Your task to perform on an android device: install app "Duolingo: language lessons" Image 0: 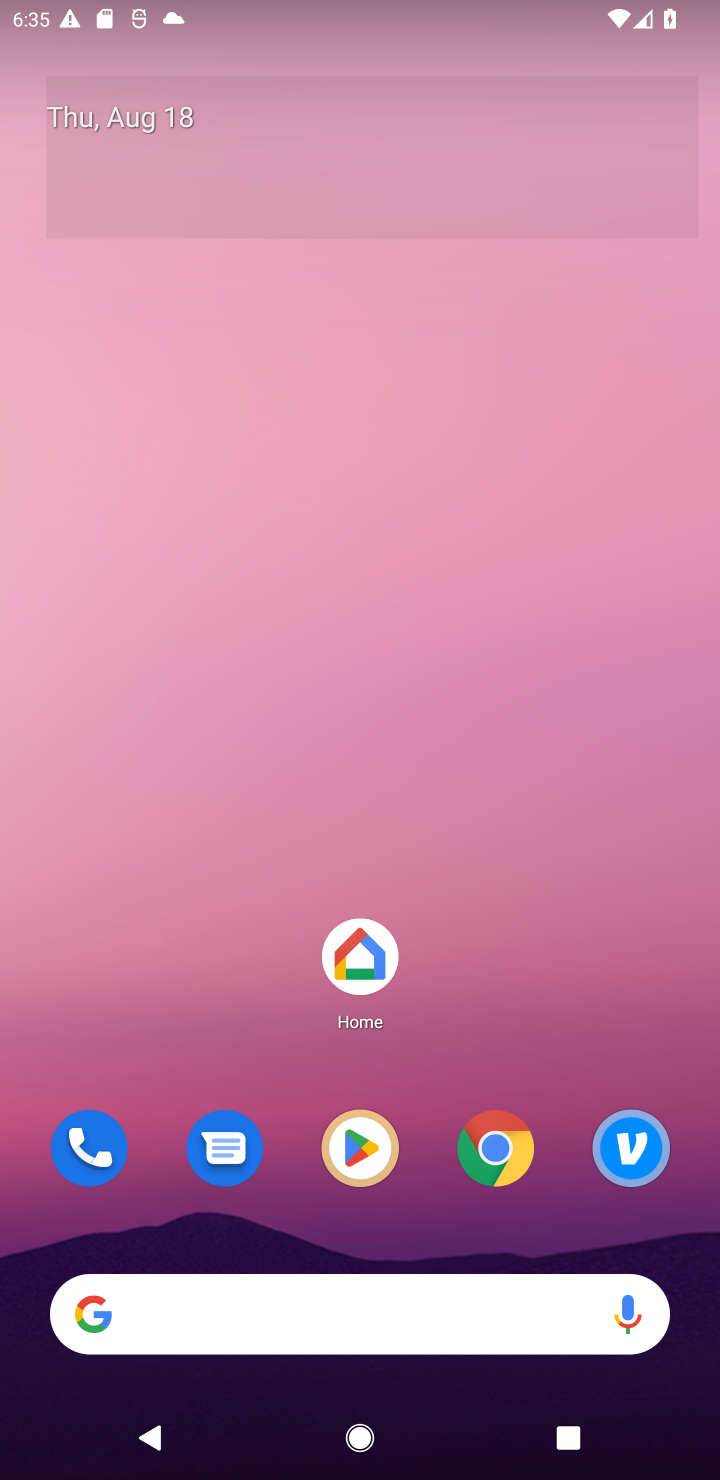
Step 0: drag from (256, 967) to (339, 51)
Your task to perform on an android device: install app "Duolingo: language lessons" Image 1: 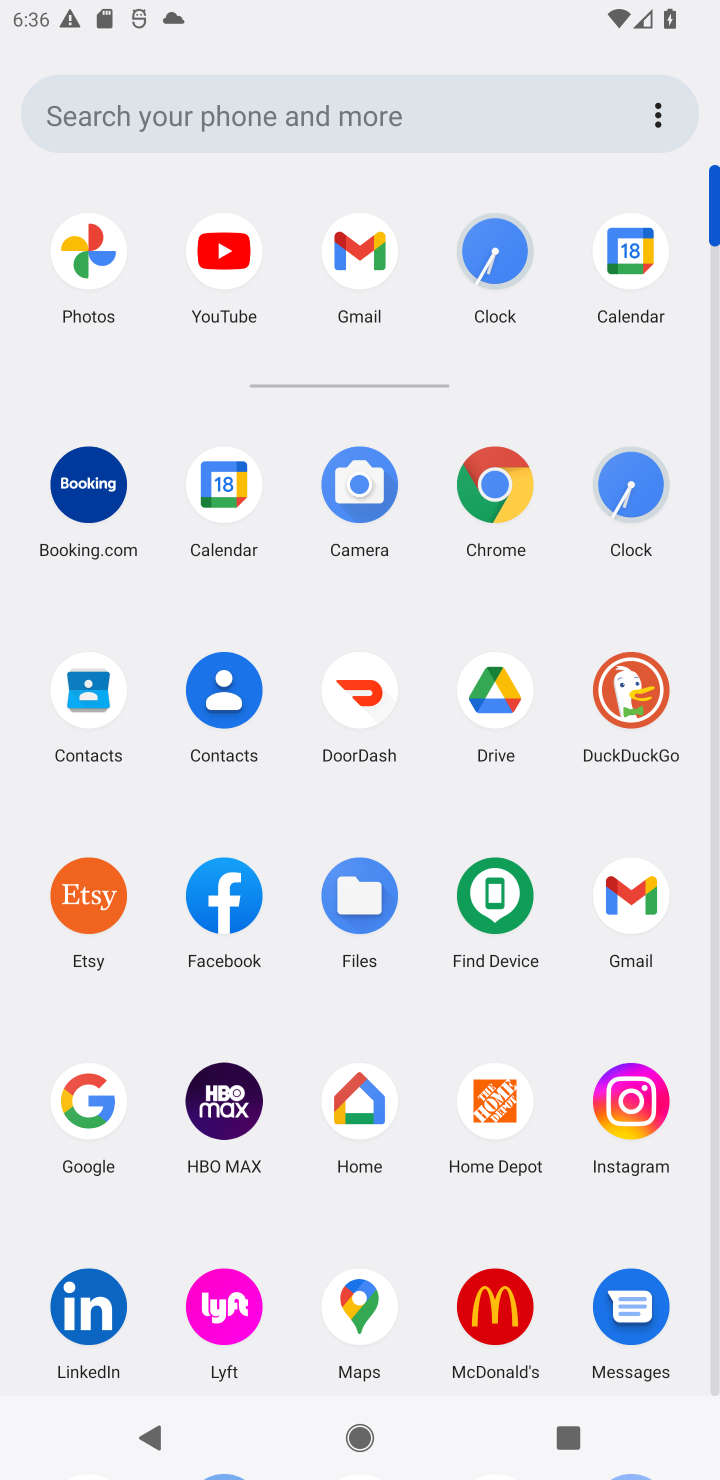
Step 1: drag from (414, 1328) to (605, 339)
Your task to perform on an android device: install app "Duolingo: language lessons" Image 2: 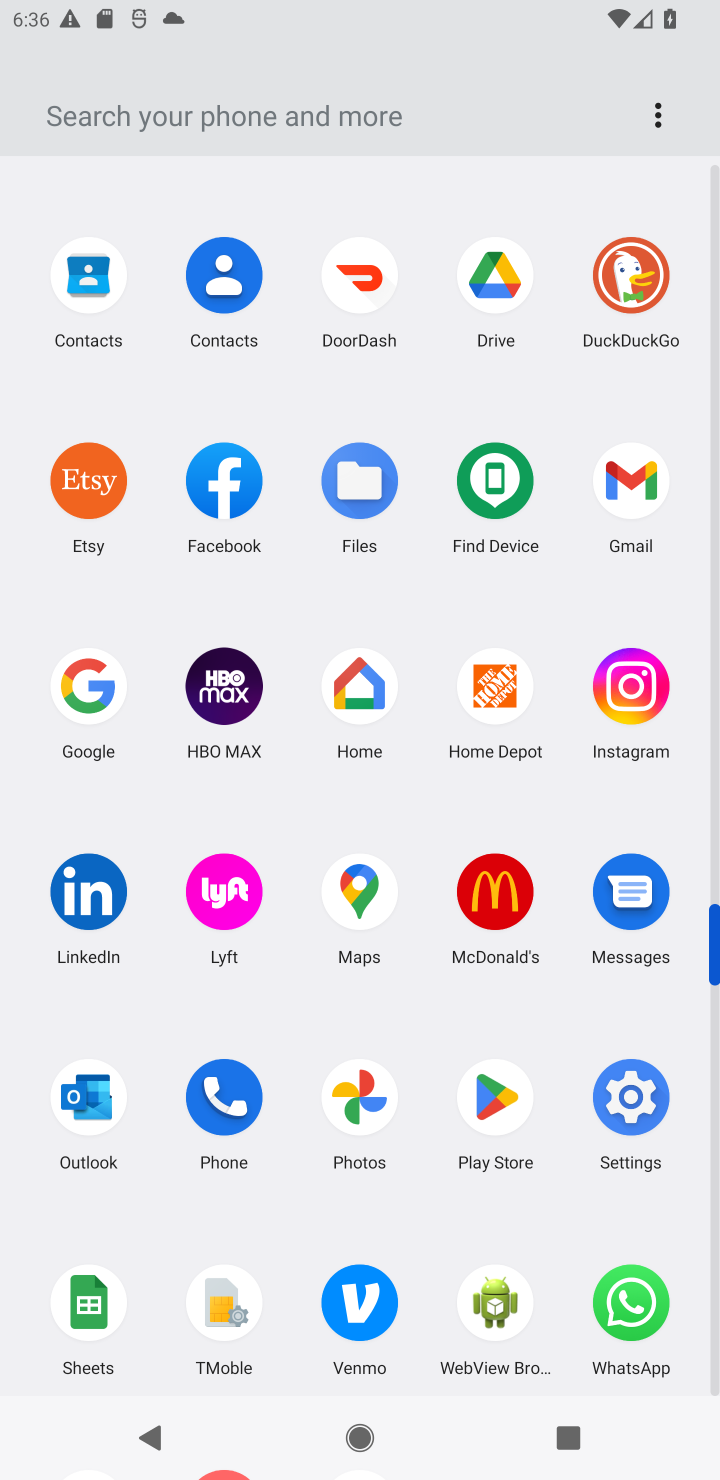
Step 2: drag from (337, 1078) to (469, 581)
Your task to perform on an android device: install app "Duolingo: language lessons" Image 3: 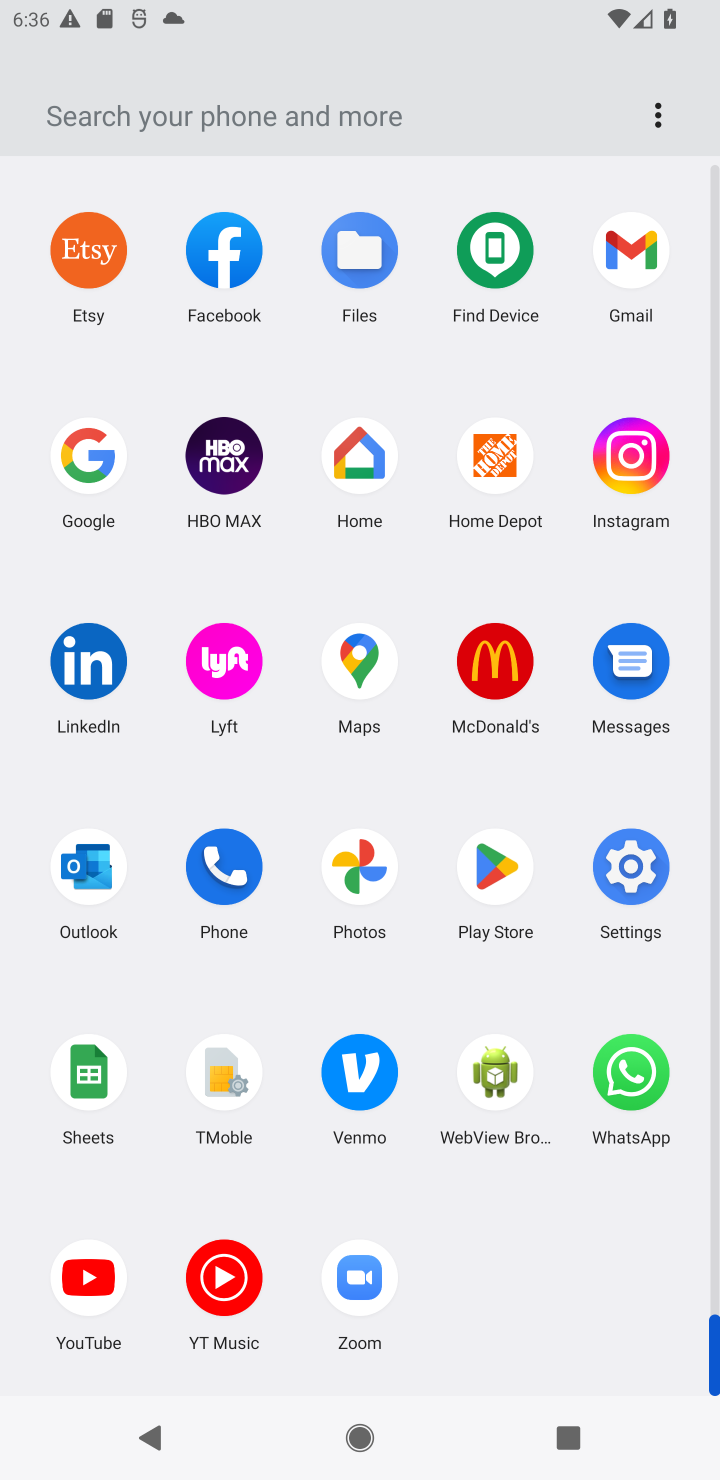
Step 3: click (477, 867)
Your task to perform on an android device: install app "Duolingo: language lessons" Image 4: 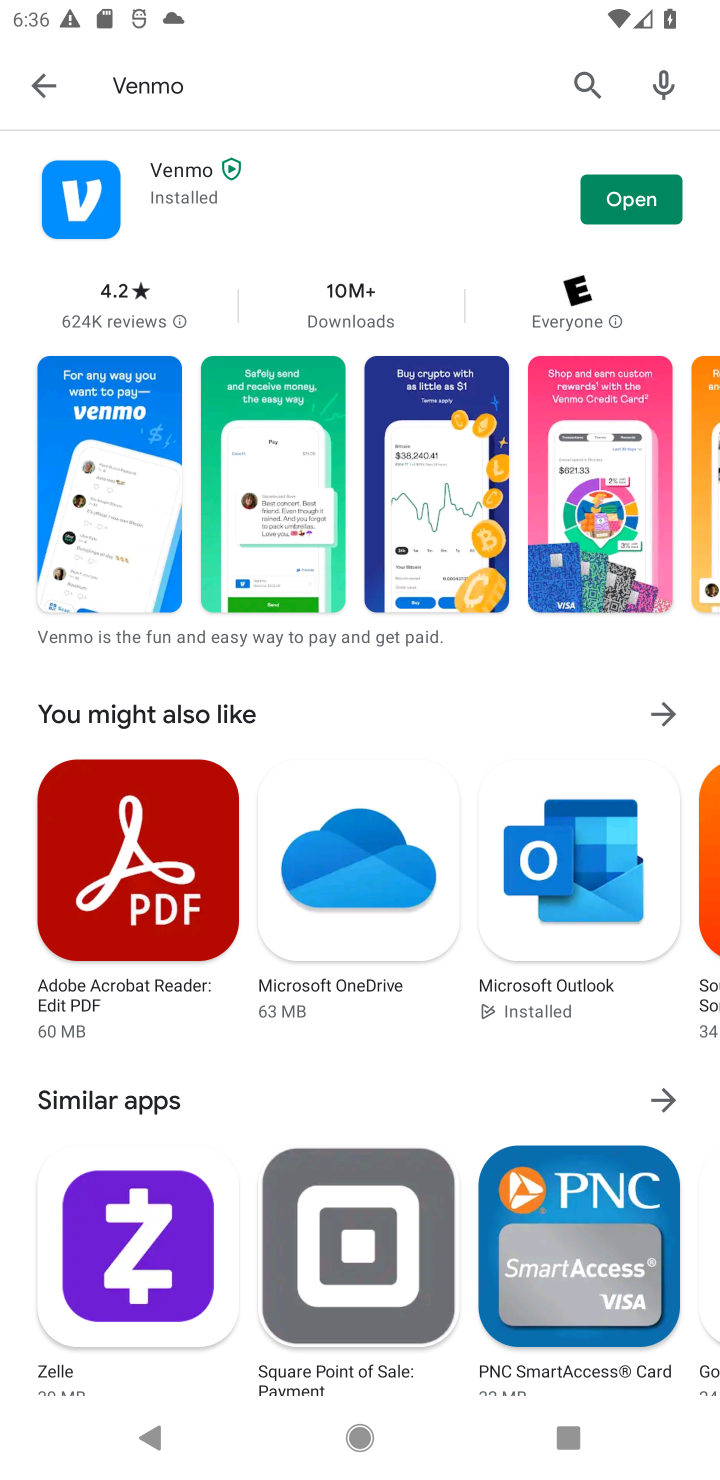
Step 4: press back button
Your task to perform on an android device: install app "Duolingo: language lessons" Image 5: 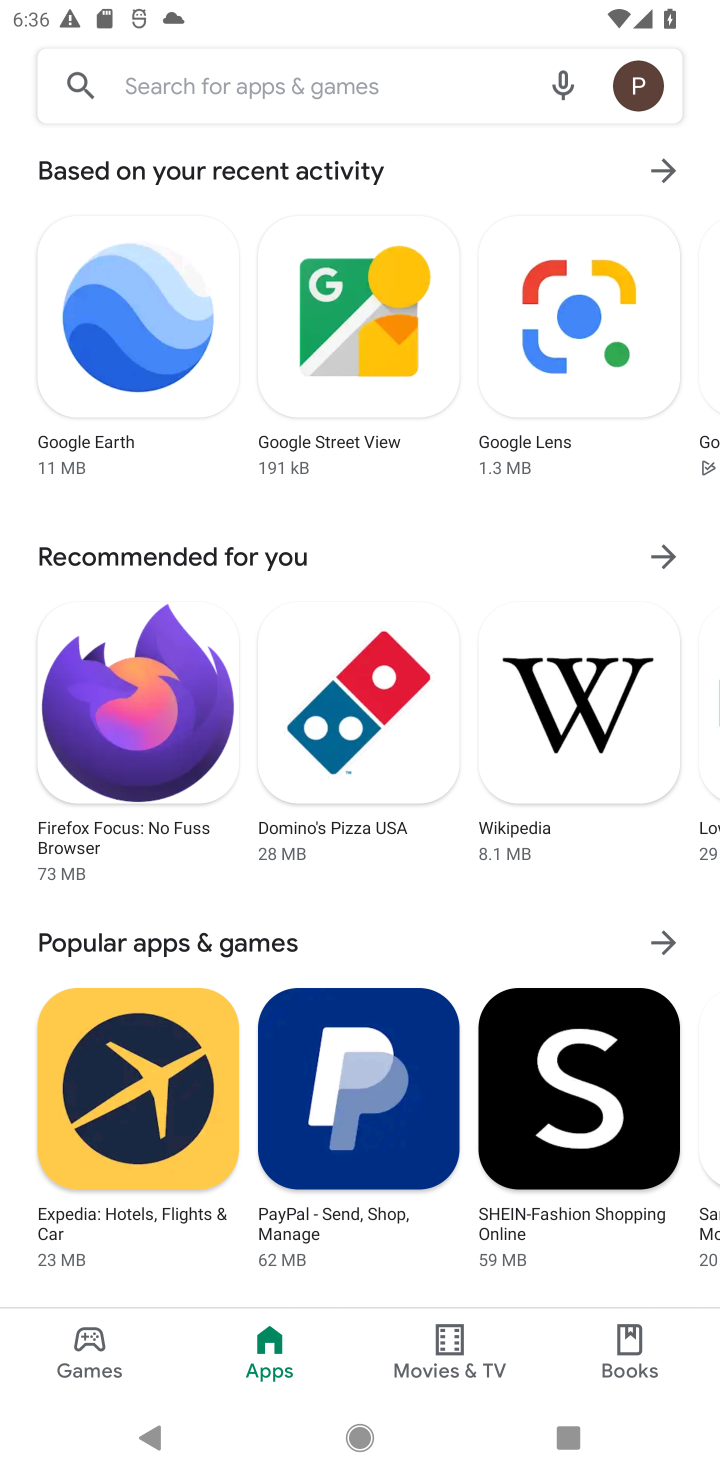
Step 5: click (202, 70)
Your task to perform on an android device: install app "Duolingo: language lessons" Image 6: 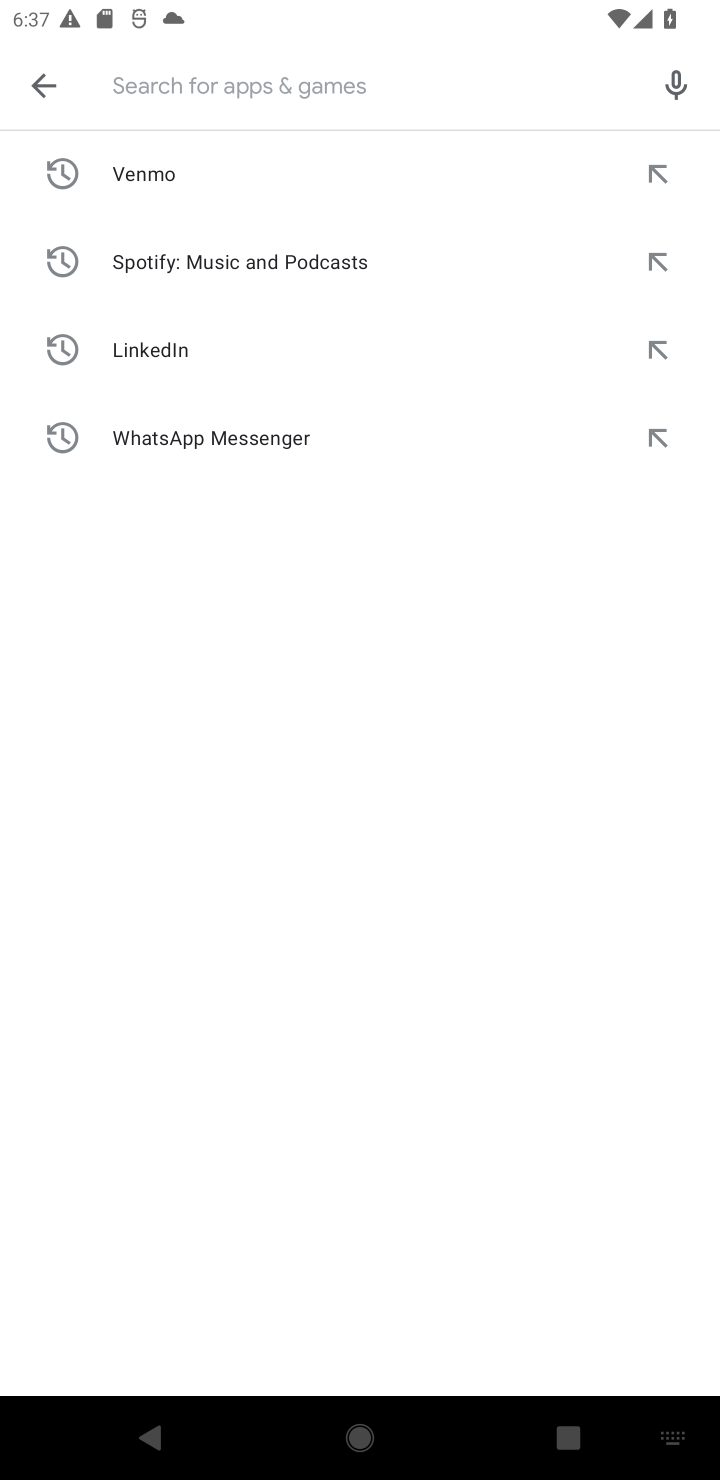
Step 6: type "Duolingo: language lessons"
Your task to perform on an android device: install app "Duolingo: language lessons" Image 7: 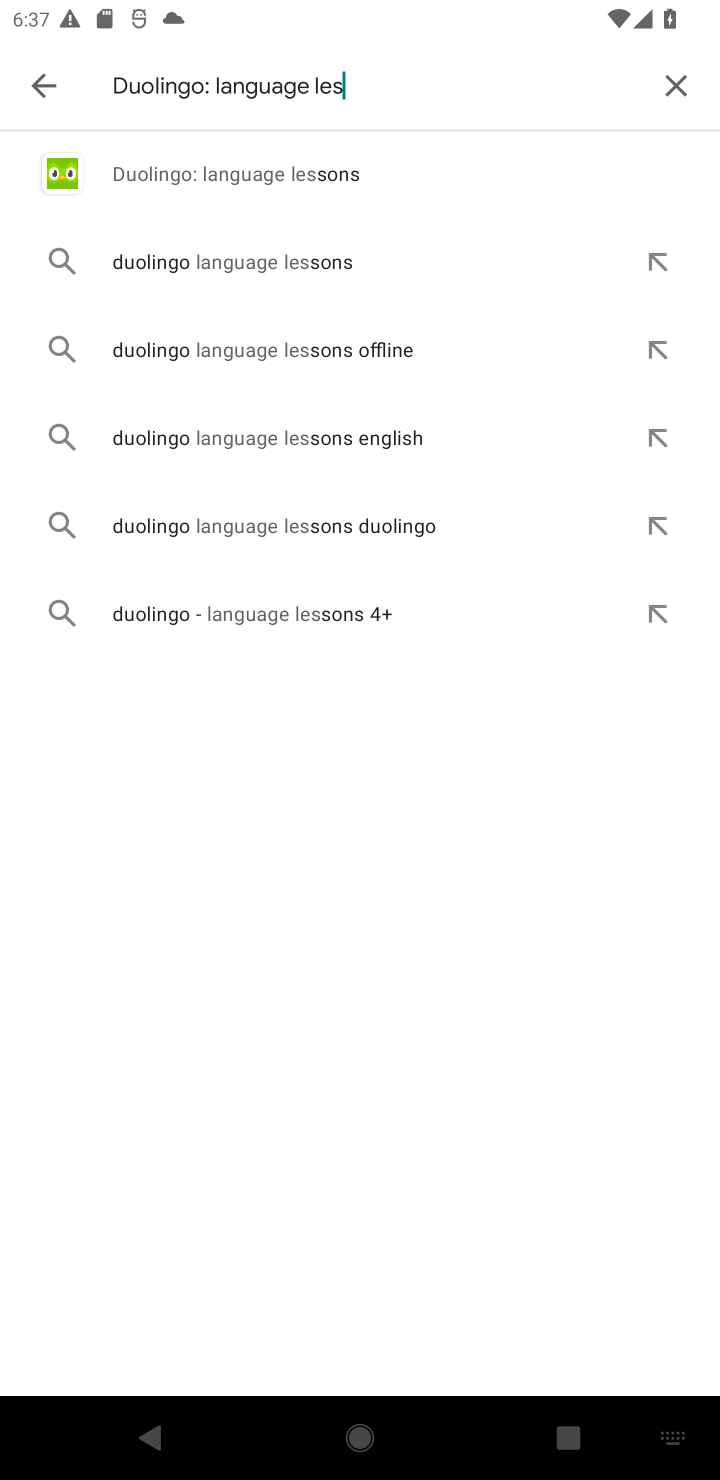
Step 7: press enter
Your task to perform on an android device: install app "Duolingo: language lessons" Image 8: 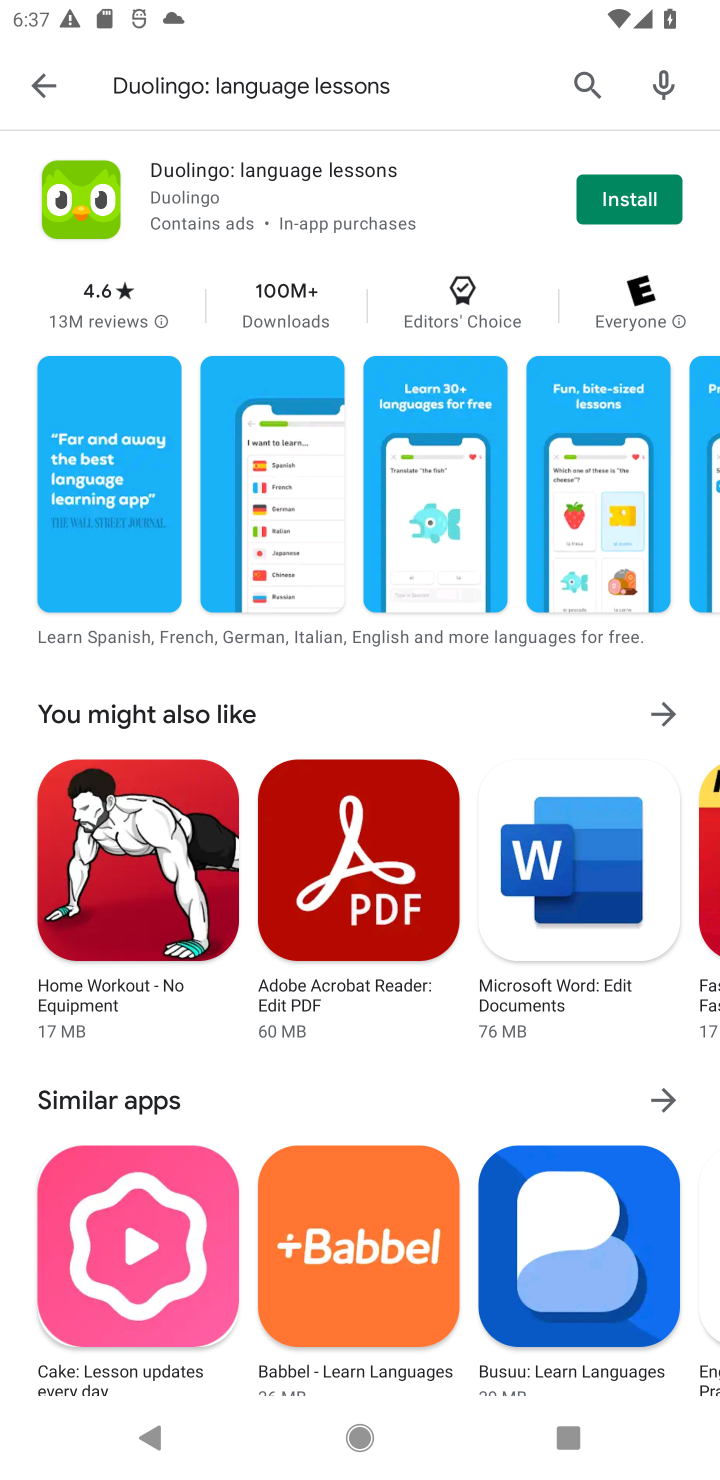
Step 8: click (611, 200)
Your task to perform on an android device: install app "Duolingo: language lessons" Image 9: 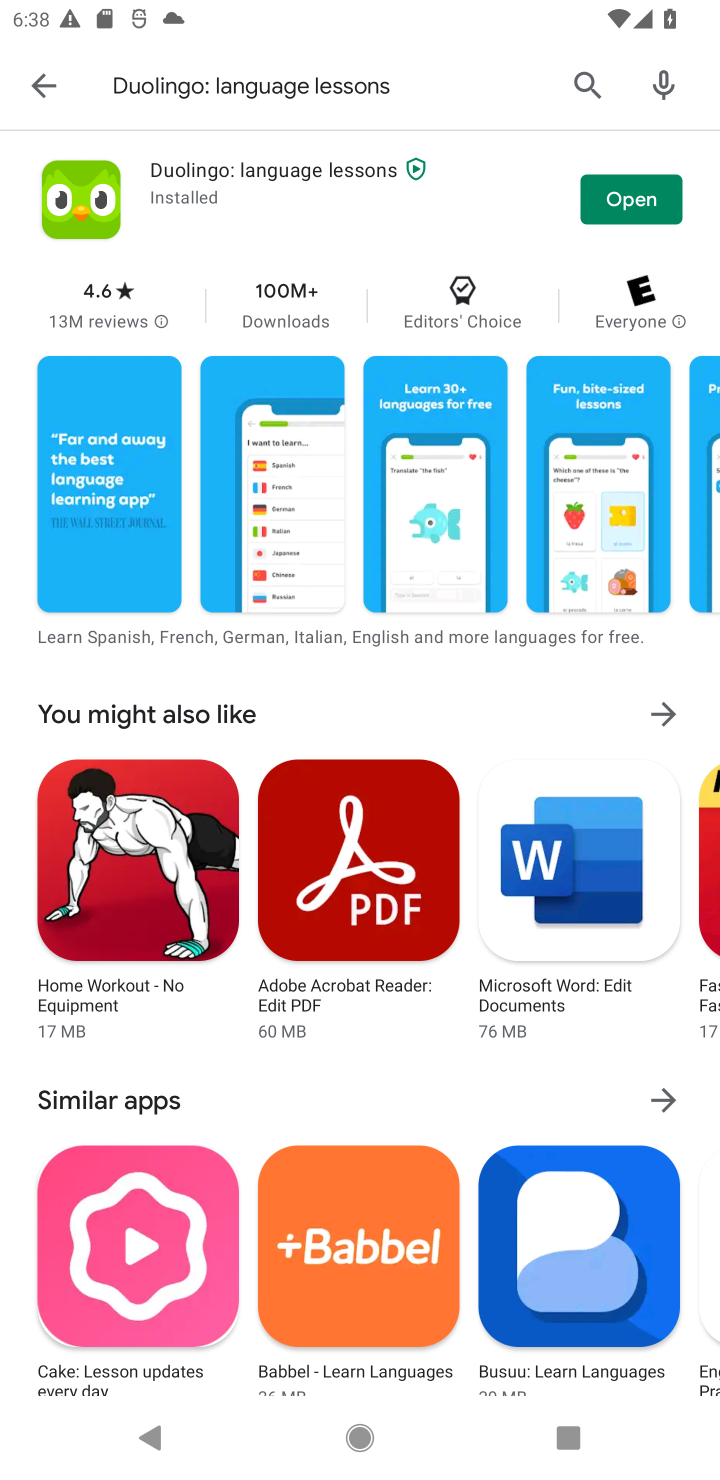
Step 9: click (673, 201)
Your task to perform on an android device: install app "Duolingo: language lessons" Image 10: 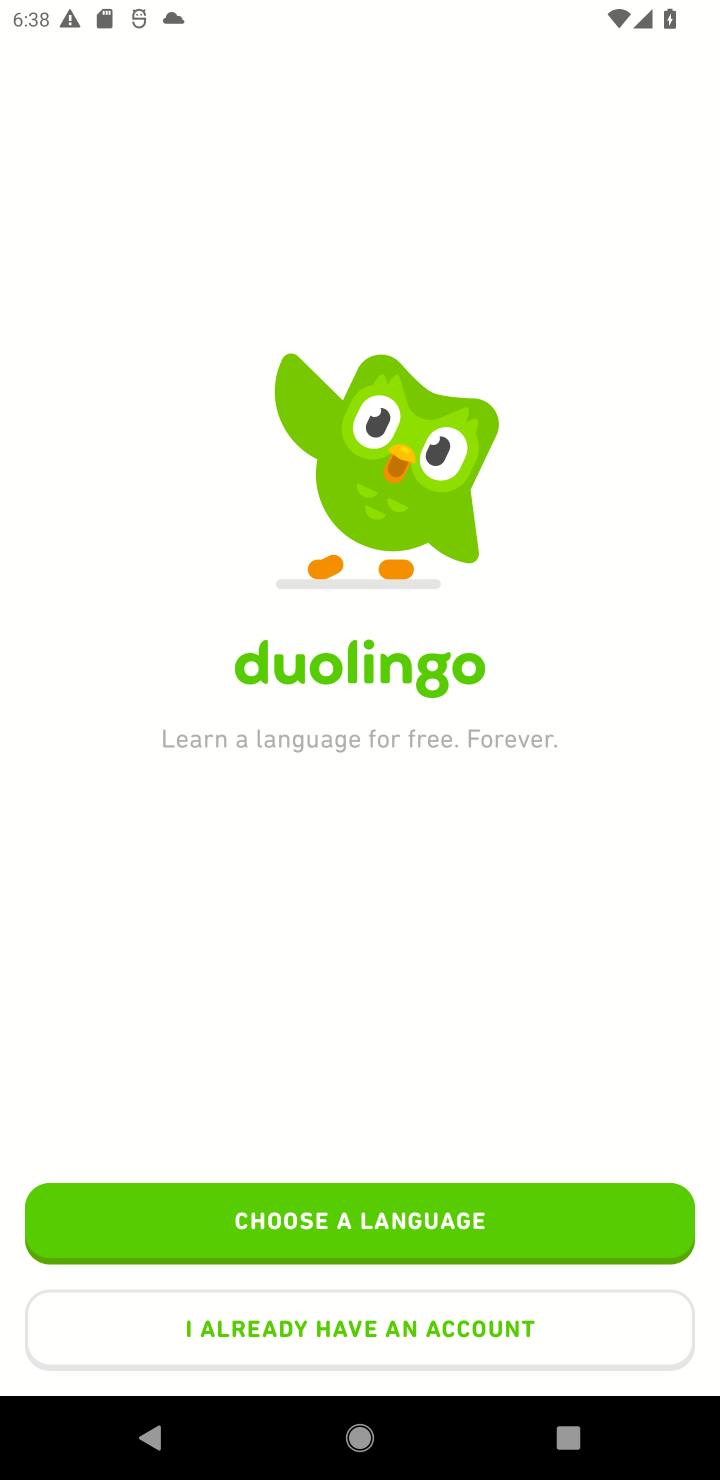
Step 10: task complete